Your task to perform on an android device: Go to Google maps Image 0: 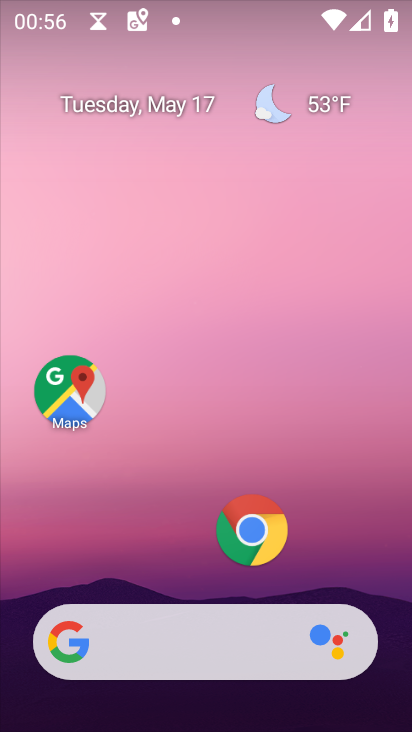
Step 0: click (75, 407)
Your task to perform on an android device: Go to Google maps Image 1: 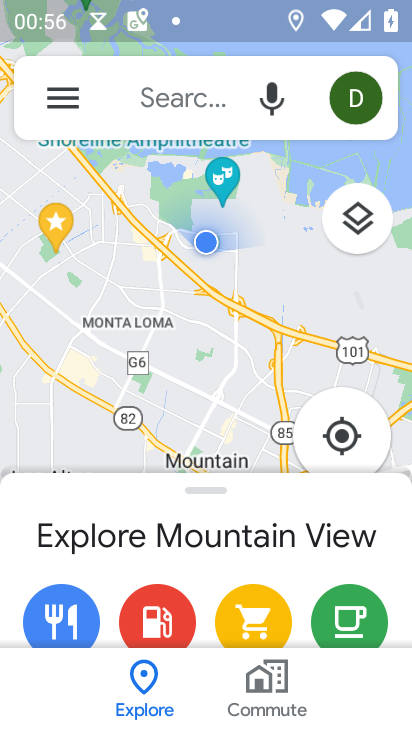
Step 1: task complete